Your task to perform on an android device: set default search engine in the chrome app Image 0: 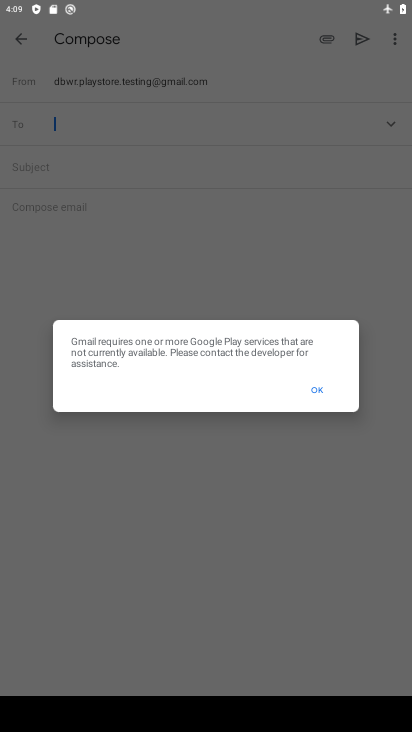
Step 0: press back button
Your task to perform on an android device: set default search engine in the chrome app Image 1: 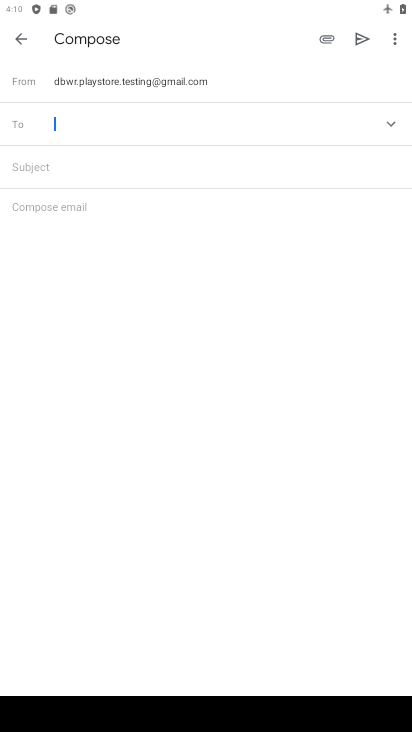
Step 1: press back button
Your task to perform on an android device: set default search engine in the chrome app Image 2: 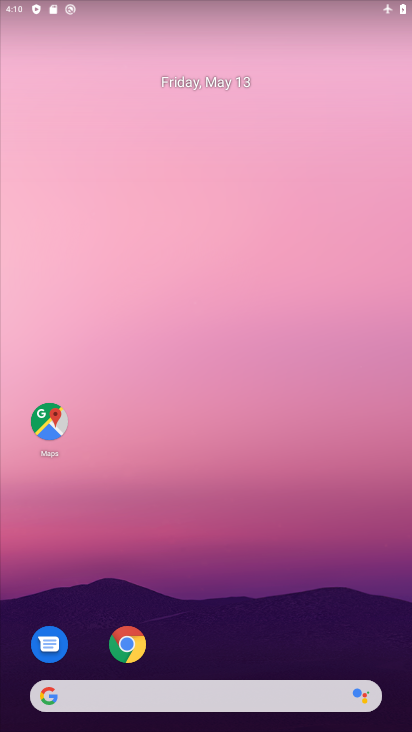
Step 2: click (139, 642)
Your task to perform on an android device: set default search engine in the chrome app Image 3: 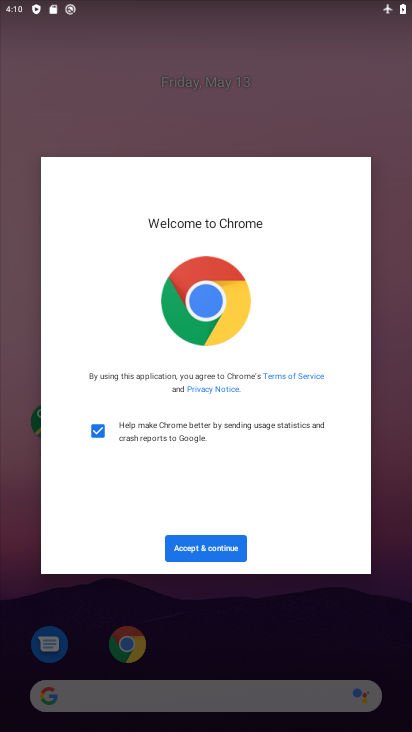
Step 3: click (203, 549)
Your task to perform on an android device: set default search engine in the chrome app Image 4: 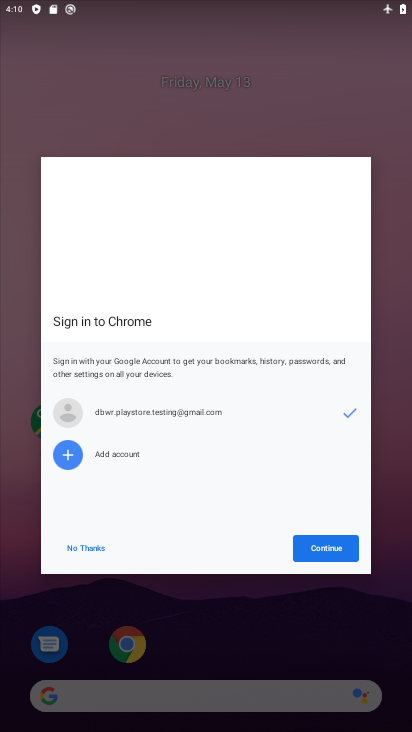
Step 4: click (347, 552)
Your task to perform on an android device: set default search engine in the chrome app Image 5: 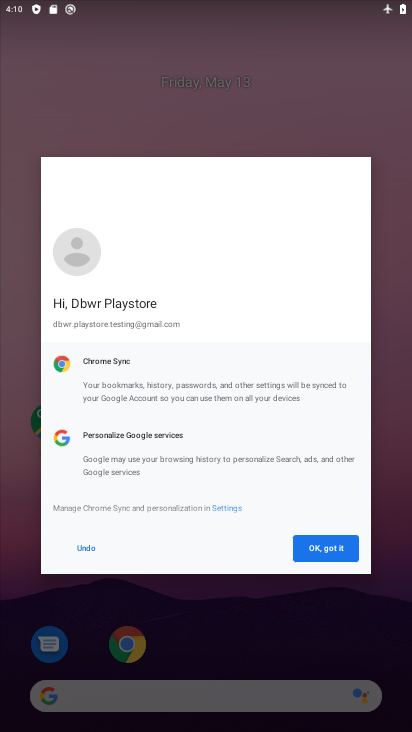
Step 5: click (341, 543)
Your task to perform on an android device: set default search engine in the chrome app Image 6: 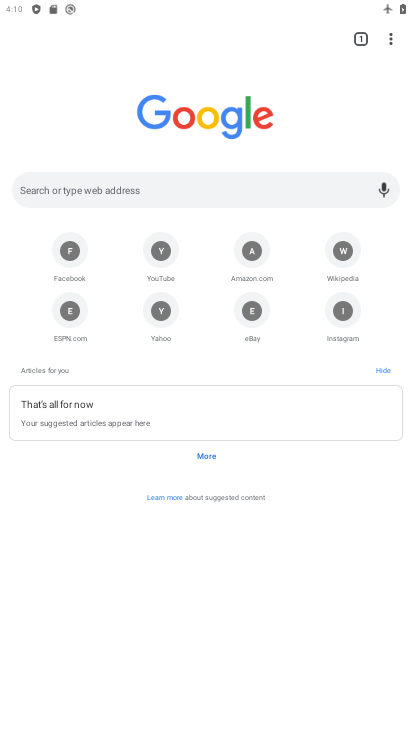
Step 6: drag from (389, 31) to (262, 328)
Your task to perform on an android device: set default search engine in the chrome app Image 7: 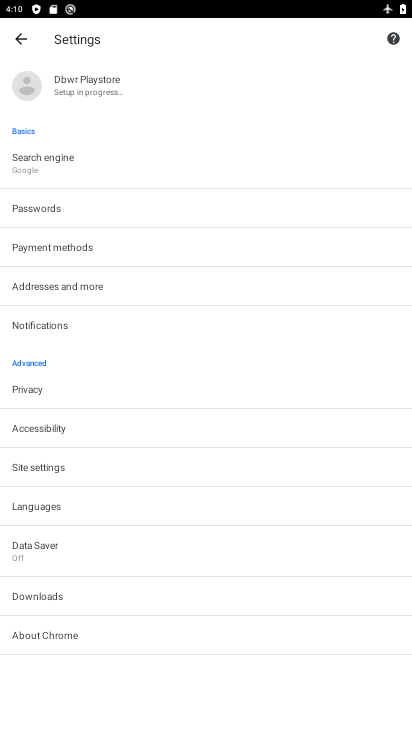
Step 7: click (41, 162)
Your task to perform on an android device: set default search engine in the chrome app Image 8: 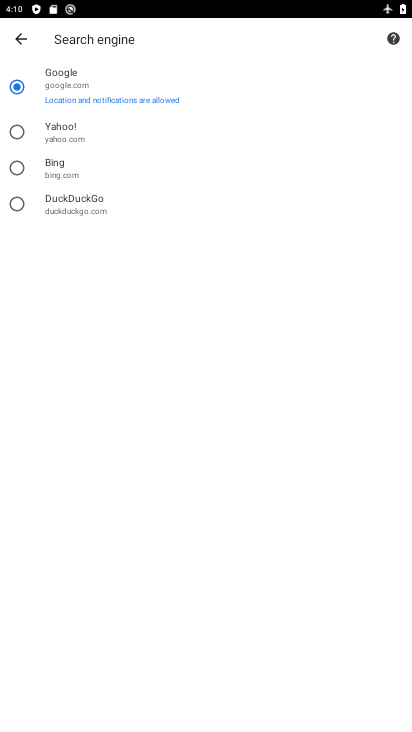
Step 8: click (56, 138)
Your task to perform on an android device: set default search engine in the chrome app Image 9: 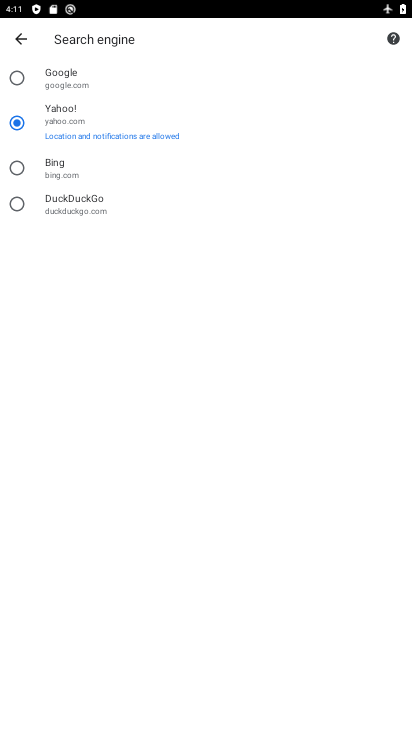
Step 9: task complete